Your task to perform on an android device: Open Youtube and go to "Your channel" Image 0: 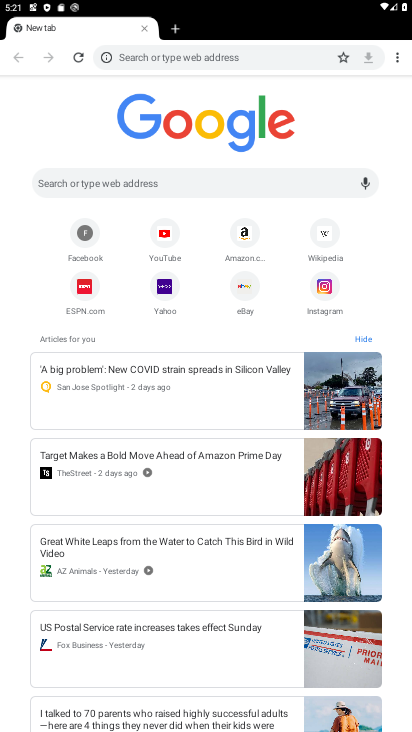
Step 0: press home button
Your task to perform on an android device: Open Youtube and go to "Your channel" Image 1: 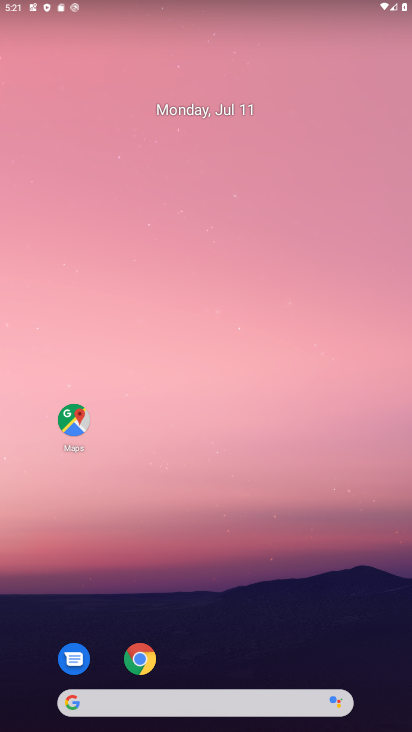
Step 1: drag from (377, 638) to (333, 130)
Your task to perform on an android device: Open Youtube and go to "Your channel" Image 2: 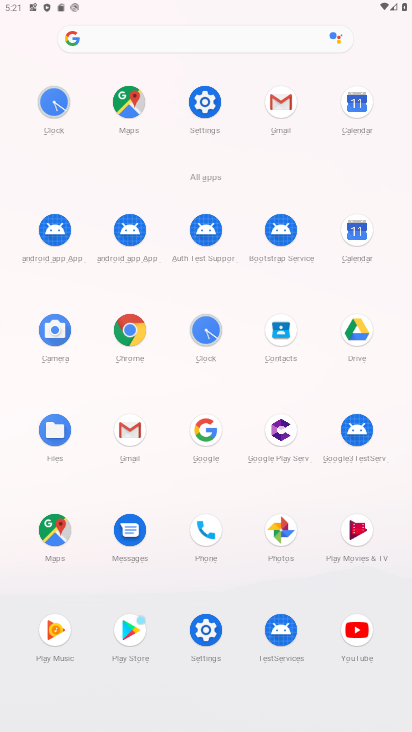
Step 2: click (355, 632)
Your task to perform on an android device: Open Youtube and go to "Your channel" Image 3: 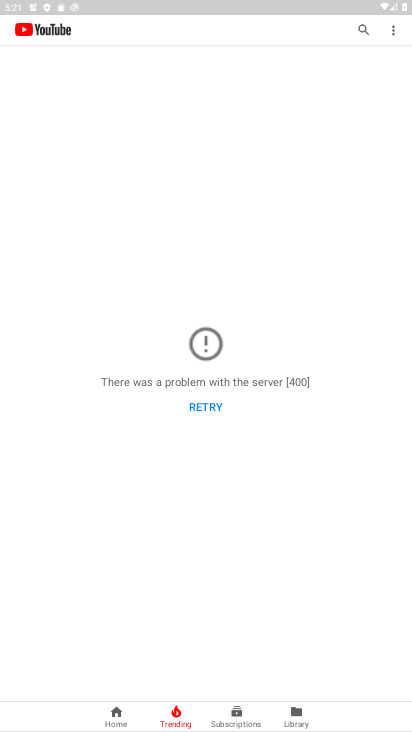
Step 3: click (392, 35)
Your task to perform on an android device: Open Youtube and go to "Your channel" Image 4: 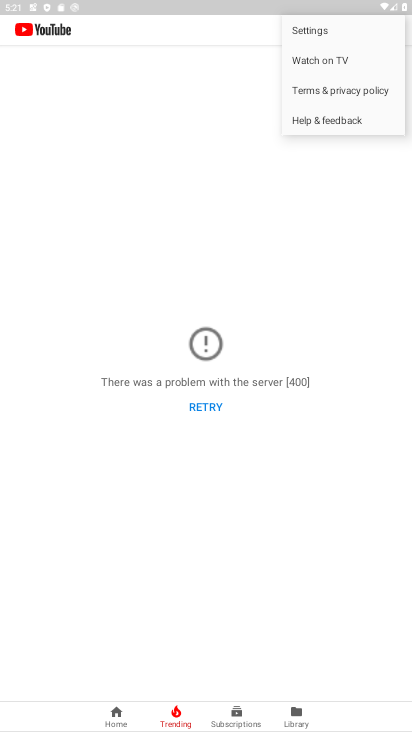
Step 4: click (306, 27)
Your task to perform on an android device: Open Youtube and go to "Your channel" Image 5: 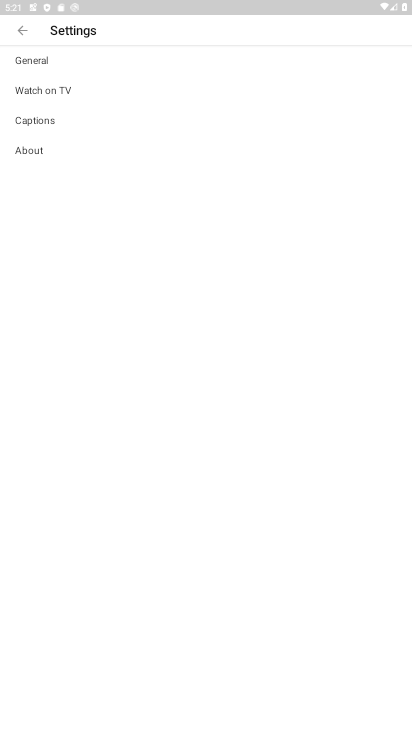
Step 5: click (25, 58)
Your task to perform on an android device: Open Youtube and go to "Your channel" Image 6: 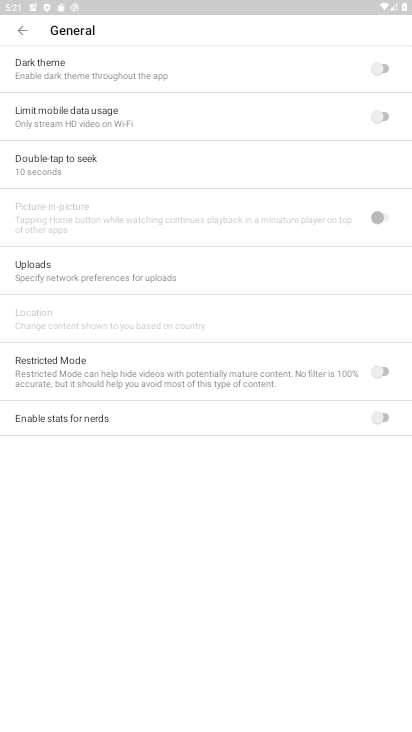
Step 6: task complete